Your task to perform on an android device: Go to settings Image 0: 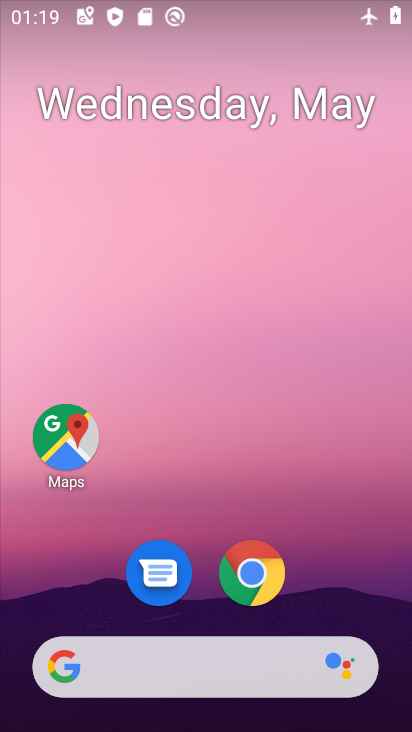
Step 0: drag from (336, 473) to (316, 264)
Your task to perform on an android device: Go to settings Image 1: 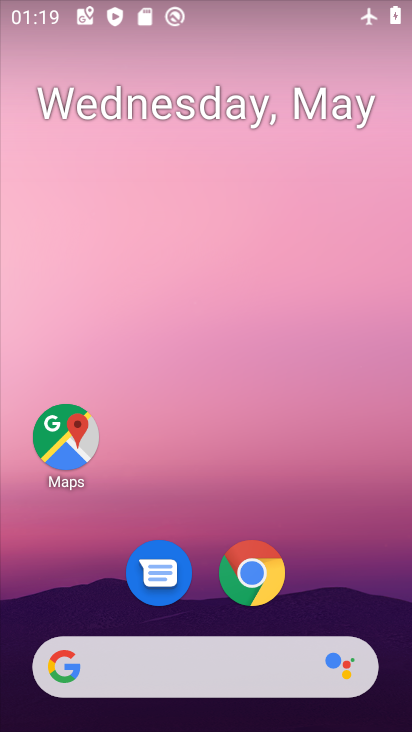
Step 1: drag from (308, 594) to (292, 196)
Your task to perform on an android device: Go to settings Image 2: 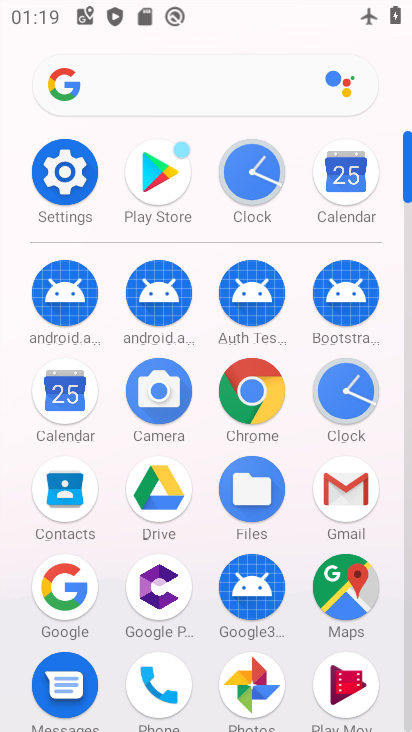
Step 2: click (57, 169)
Your task to perform on an android device: Go to settings Image 3: 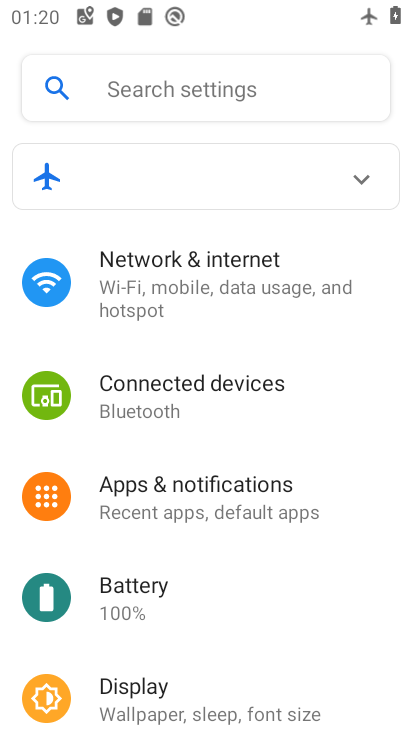
Step 3: task complete